Your task to perform on an android device: turn off location Image 0: 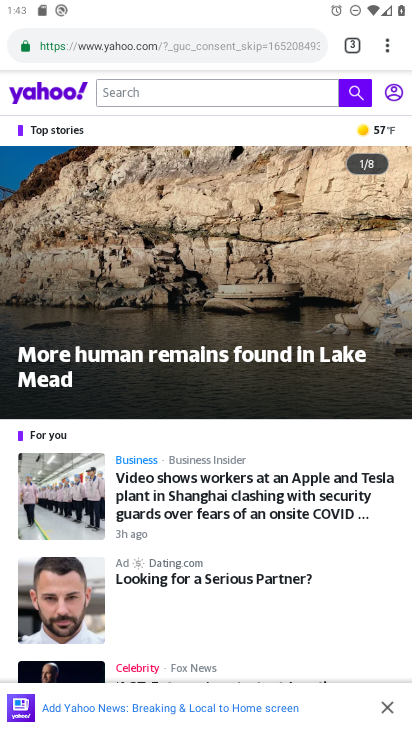
Step 0: press home button
Your task to perform on an android device: turn off location Image 1: 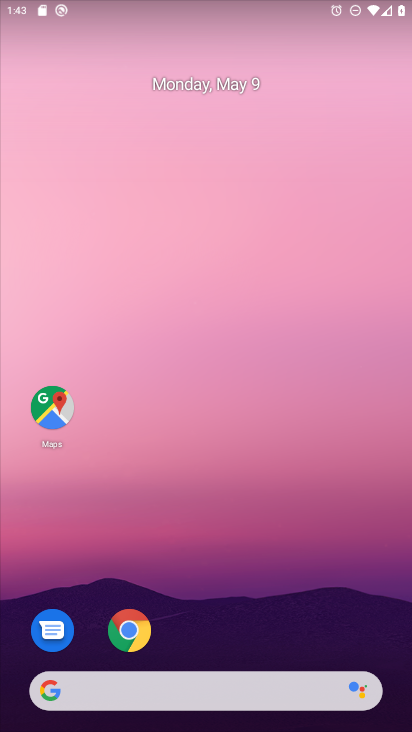
Step 1: drag from (288, 710) to (221, 291)
Your task to perform on an android device: turn off location Image 2: 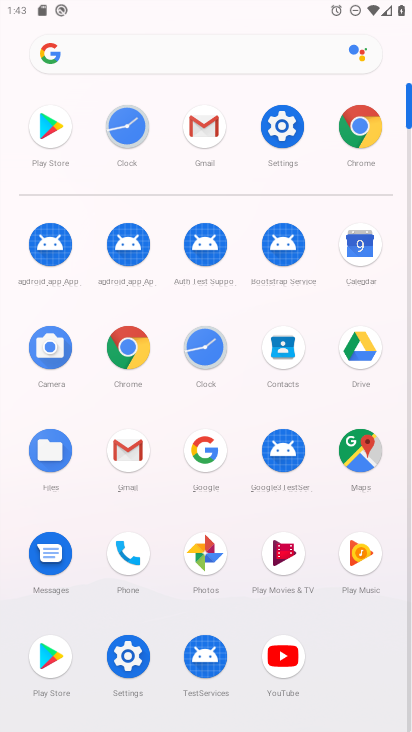
Step 2: click (277, 147)
Your task to perform on an android device: turn off location Image 3: 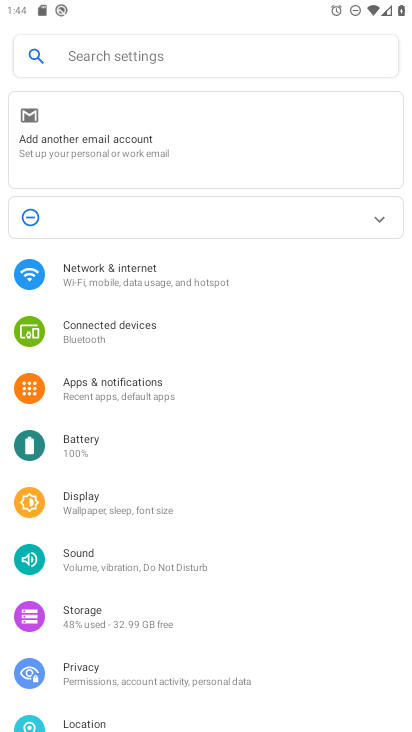
Step 3: click (204, 65)
Your task to perform on an android device: turn off location Image 4: 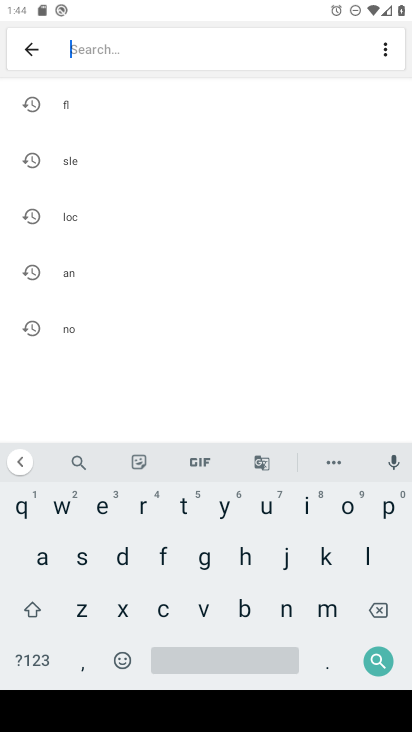
Step 4: click (78, 229)
Your task to perform on an android device: turn off location Image 5: 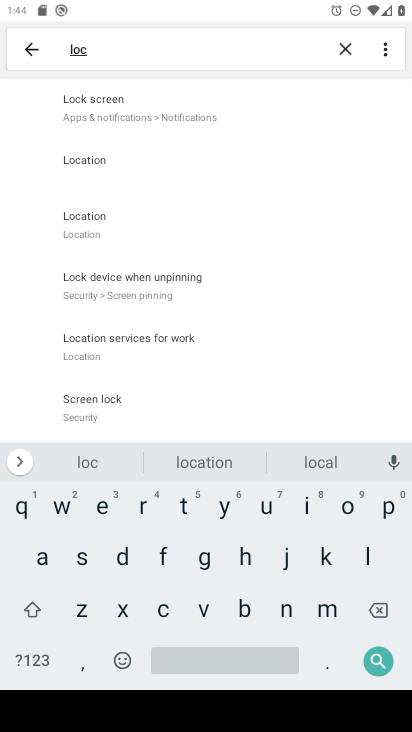
Step 5: click (81, 220)
Your task to perform on an android device: turn off location Image 6: 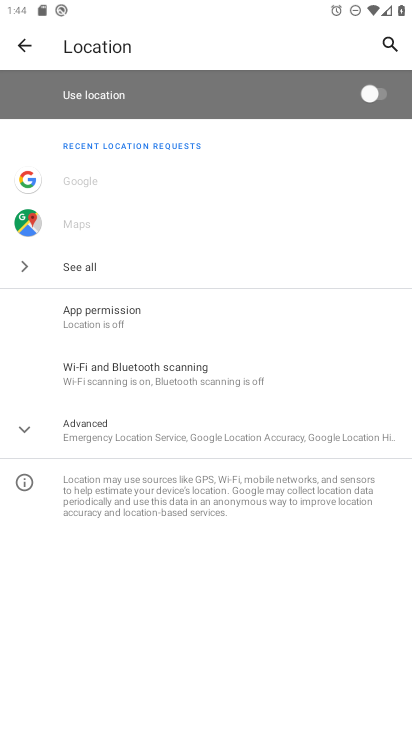
Step 6: task complete